Your task to perform on an android device: turn on translation in the chrome app Image 0: 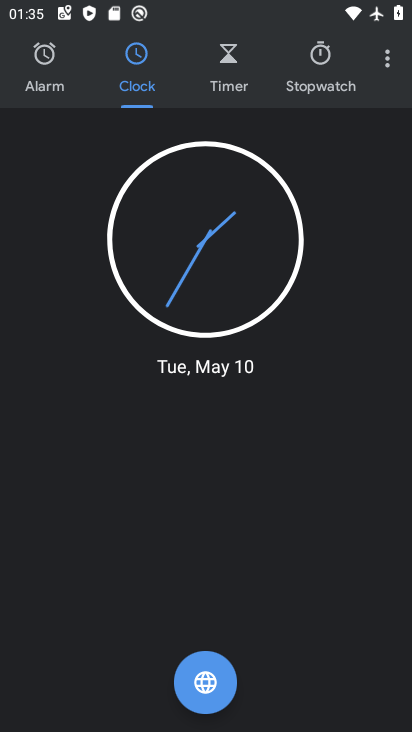
Step 0: press home button
Your task to perform on an android device: turn on translation in the chrome app Image 1: 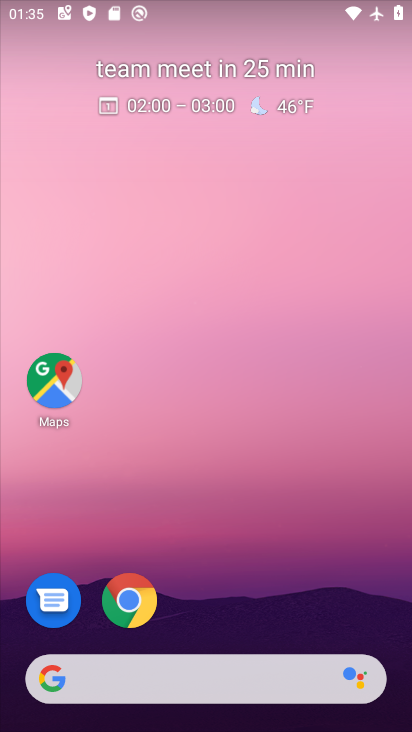
Step 1: click (136, 590)
Your task to perform on an android device: turn on translation in the chrome app Image 2: 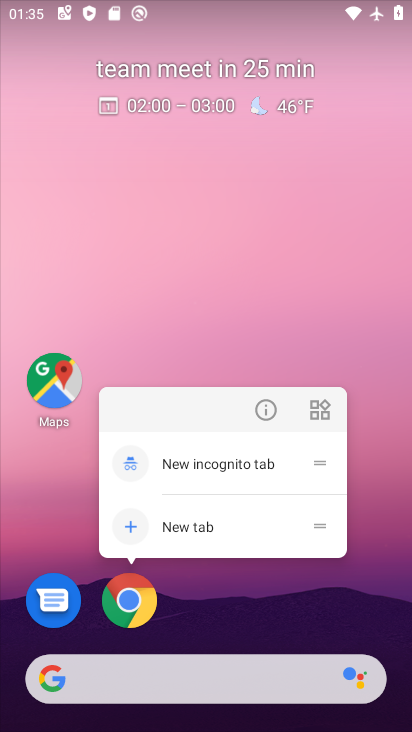
Step 2: click (132, 615)
Your task to perform on an android device: turn on translation in the chrome app Image 3: 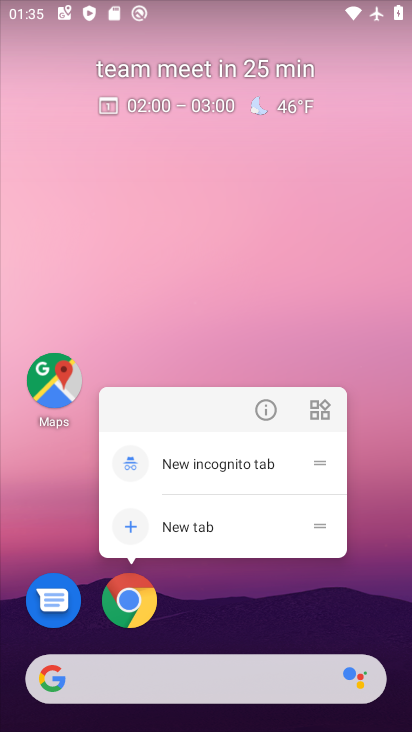
Step 3: click (127, 606)
Your task to perform on an android device: turn on translation in the chrome app Image 4: 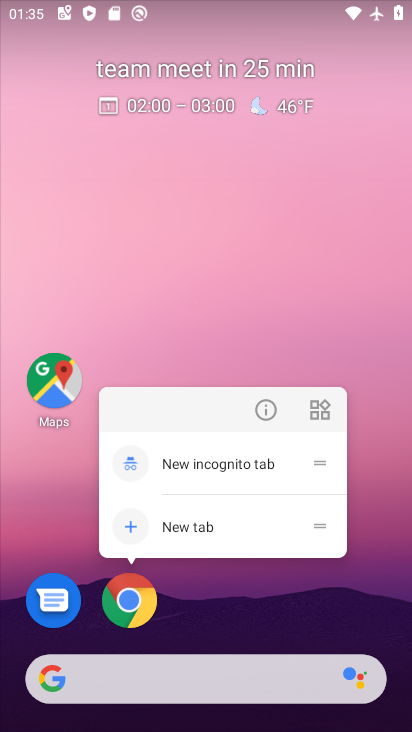
Step 4: click (133, 593)
Your task to perform on an android device: turn on translation in the chrome app Image 5: 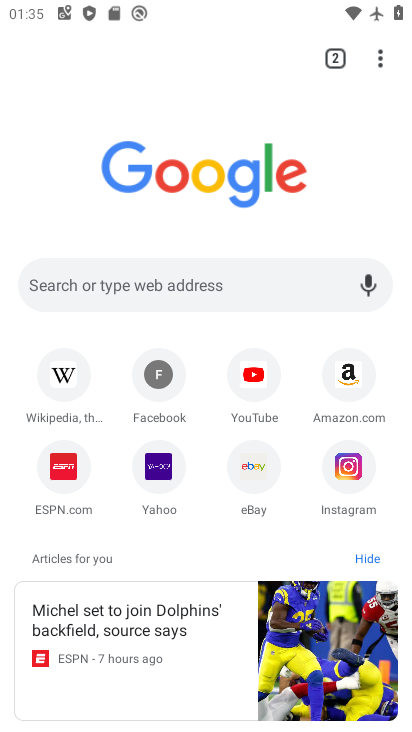
Step 5: click (378, 63)
Your task to perform on an android device: turn on translation in the chrome app Image 6: 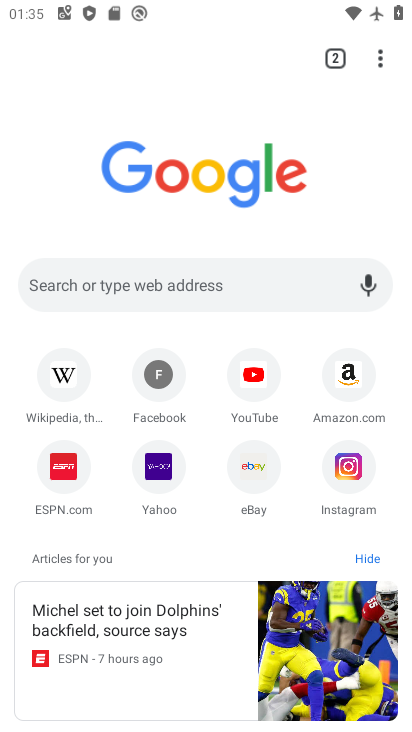
Step 6: click (382, 53)
Your task to perform on an android device: turn on translation in the chrome app Image 7: 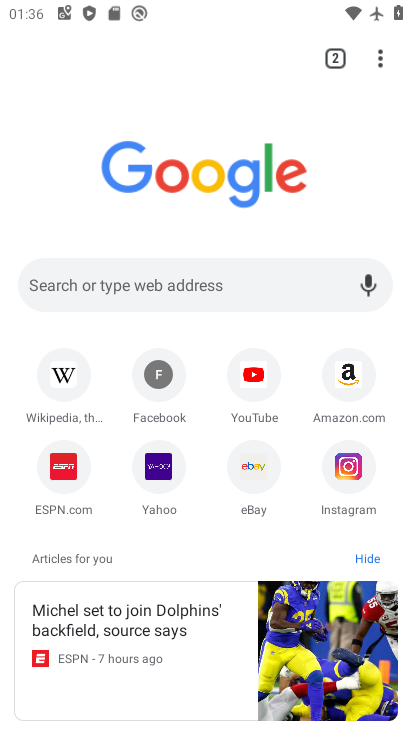
Step 7: drag from (382, 53) to (167, 485)
Your task to perform on an android device: turn on translation in the chrome app Image 8: 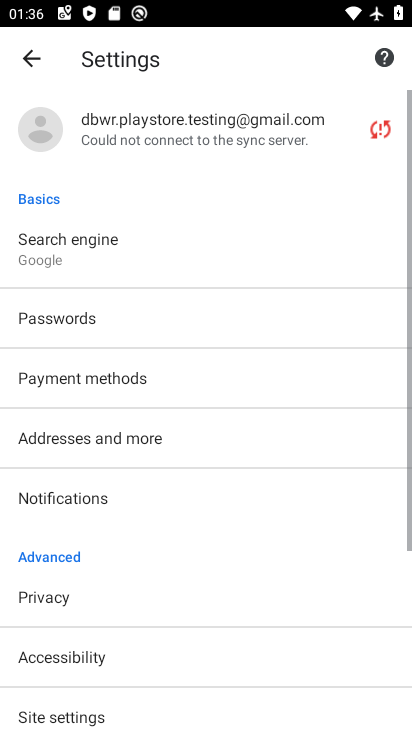
Step 8: drag from (169, 483) to (153, 243)
Your task to perform on an android device: turn on translation in the chrome app Image 9: 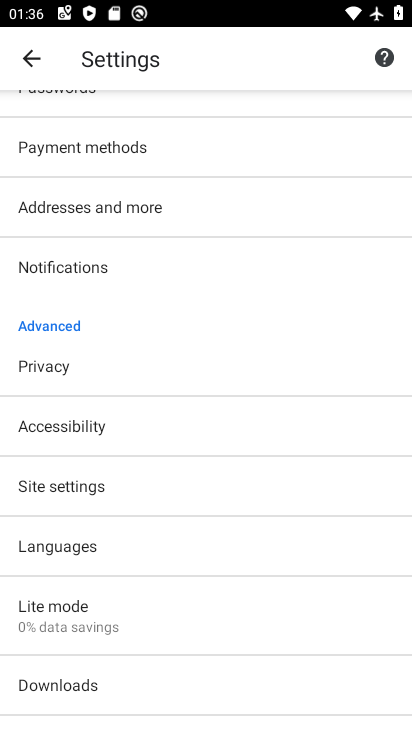
Step 9: click (83, 544)
Your task to perform on an android device: turn on translation in the chrome app Image 10: 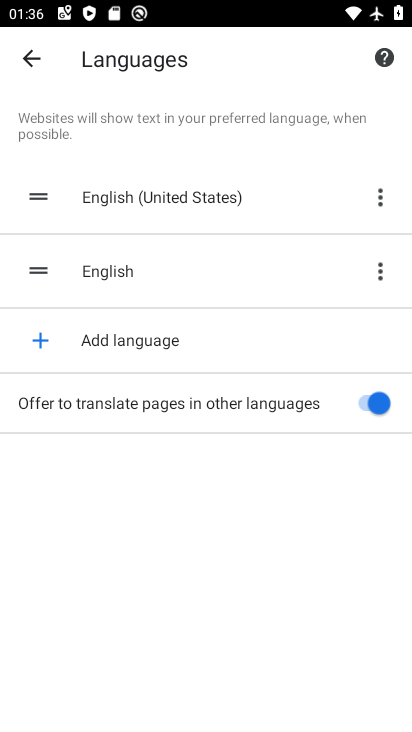
Step 10: task complete